Your task to perform on an android device: See recent photos Image 0: 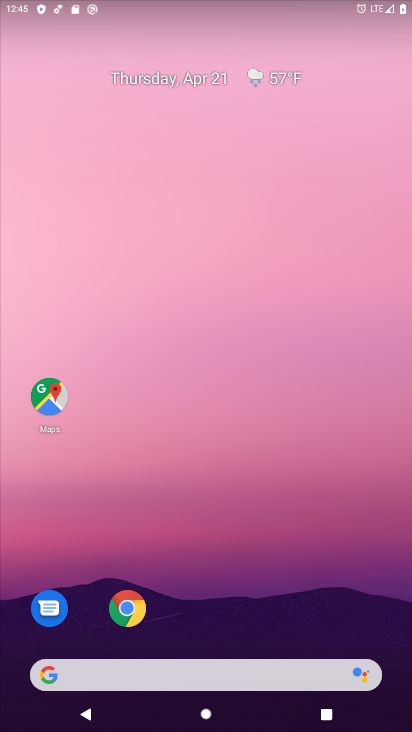
Step 0: drag from (219, 559) to (211, 162)
Your task to perform on an android device: See recent photos Image 1: 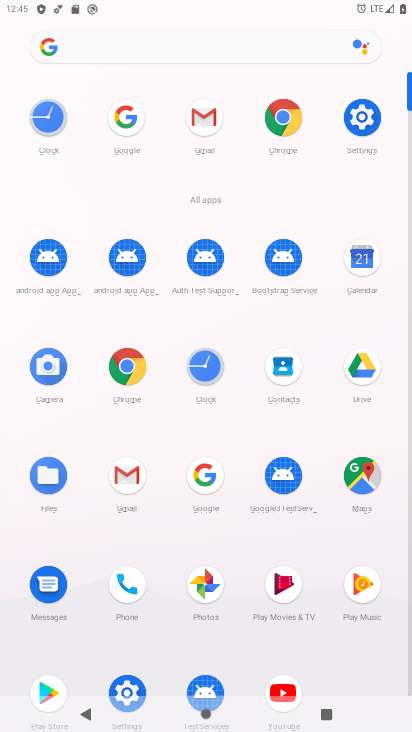
Step 1: click (198, 582)
Your task to perform on an android device: See recent photos Image 2: 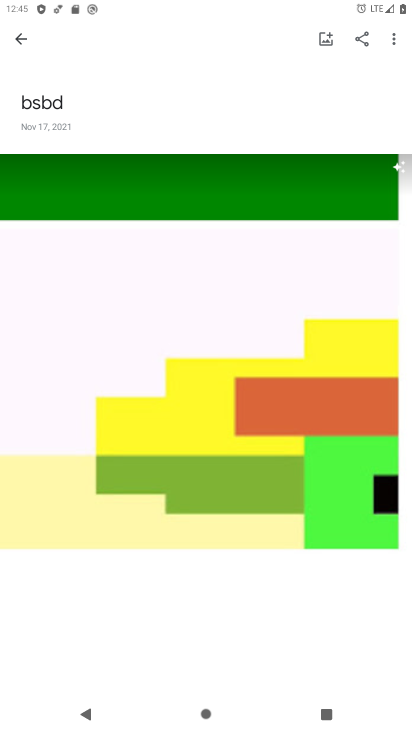
Step 2: click (19, 41)
Your task to perform on an android device: See recent photos Image 3: 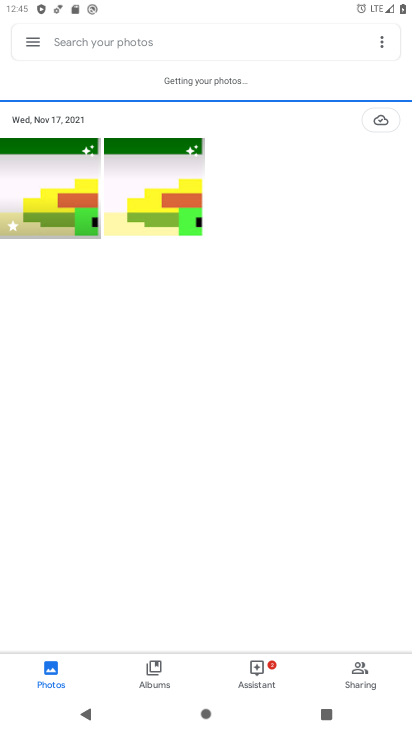
Step 3: click (72, 677)
Your task to perform on an android device: See recent photos Image 4: 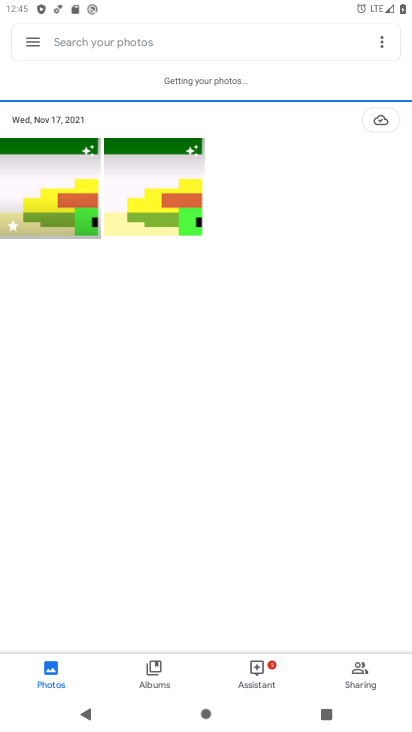
Step 4: click (57, 676)
Your task to perform on an android device: See recent photos Image 5: 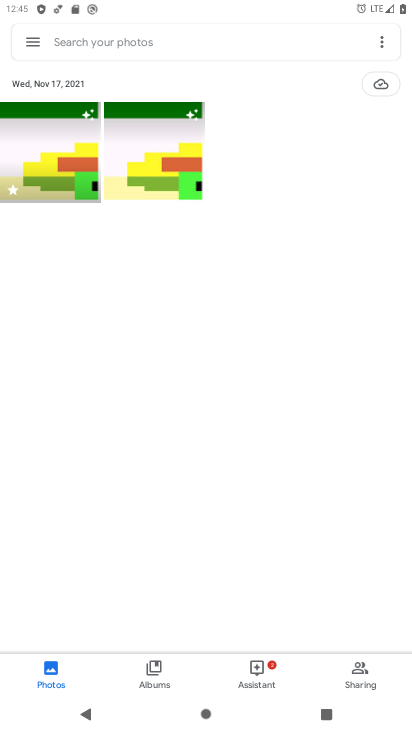
Step 5: task complete